Your task to perform on an android device: turn off priority inbox in the gmail app Image 0: 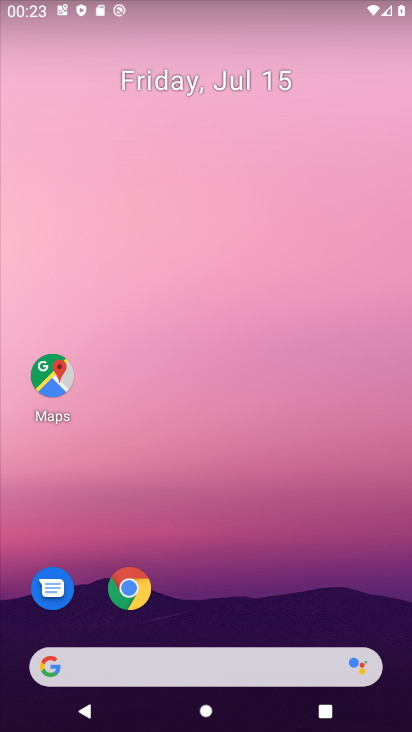
Step 0: drag from (240, 595) to (241, 198)
Your task to perform on an android device: turn off priority inbox in the gmail app Image 1: 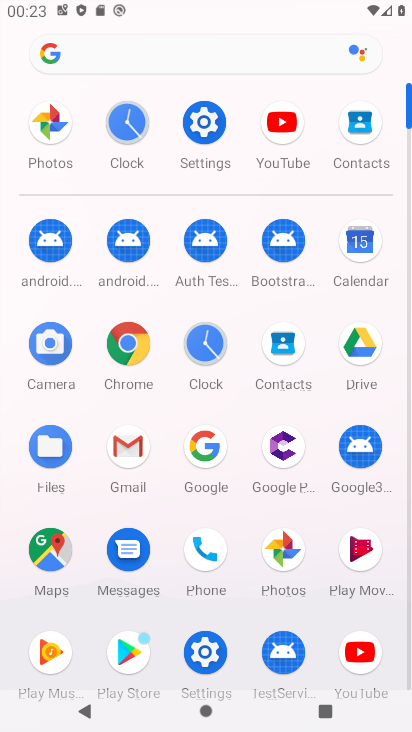
Step 1: click (119, 442)
Your task to perform on an android device: turn off priority inbox in the gmail app Image 2: 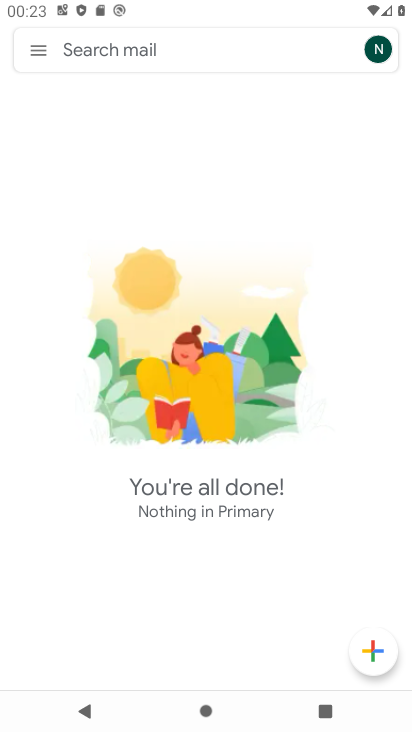
Step 2: click (37, 40)
Your task to perform on an android device: turn off priority inbox in the gmail app Image 3: 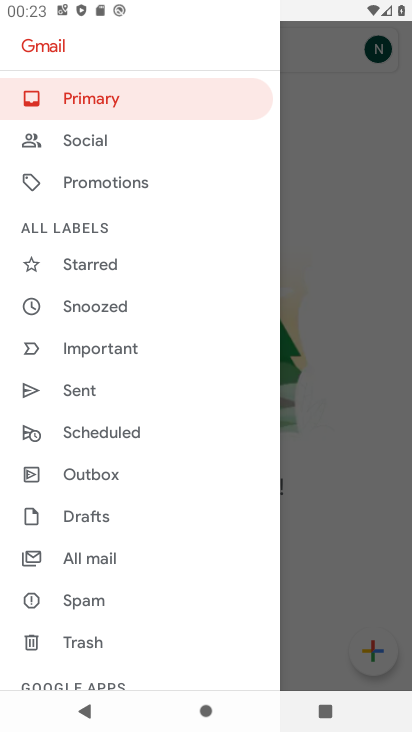
Step 3: drag from (124, 630) to (221, 53)
Your task to perform on an android device: turn off priority inbox in the gmail app Image 4: 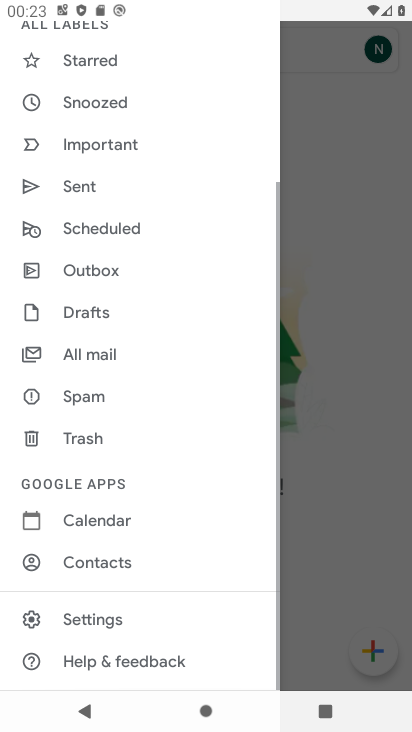
Step 4: click (95, 620)
Your task to perform on an android device: turn off priority inbox in the gmail app Image 5: 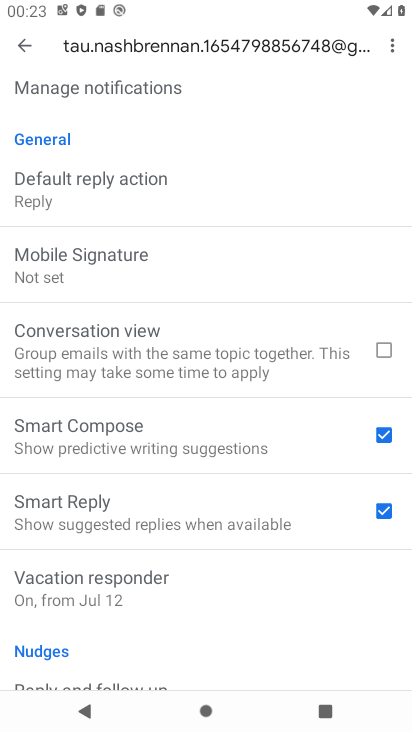
Step 5: drag from (158, 171) to (77, 730)
Your task to perform on an android device: turn off priority inbox in the gmail app Image 6: 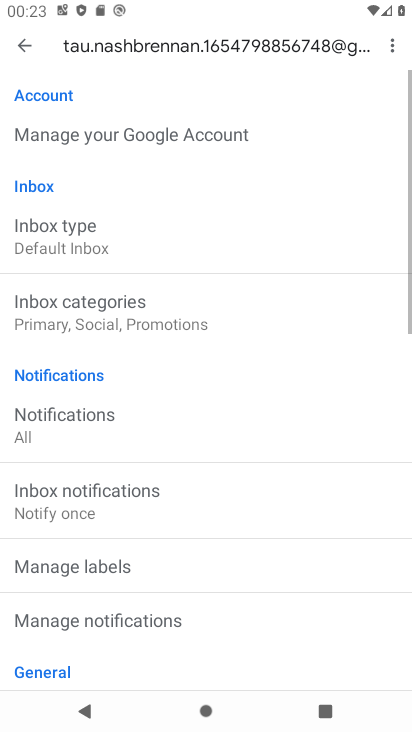
Step 6: click (64, 221)
Your task to perform on an android device: turn off priority inbox in the gmail app Image 7: 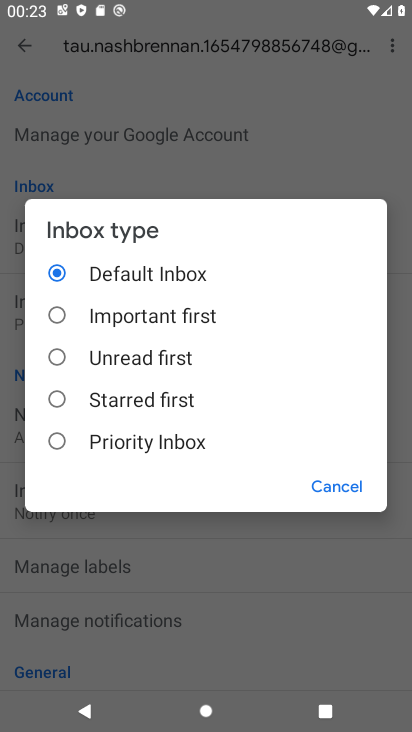
Step 7: task complete